Your task to perform on an android device: change the upload size in google photos Image 0: 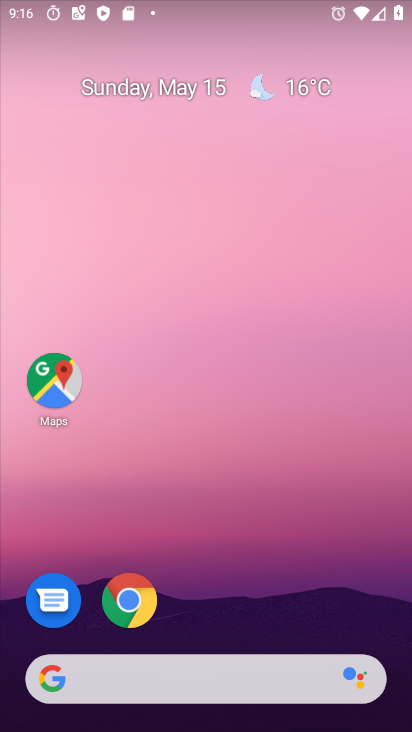
Step 0: drag from (215, 595) to (190, 123)
Your task to perform on an android device: change the upload size in google photos Image 1: 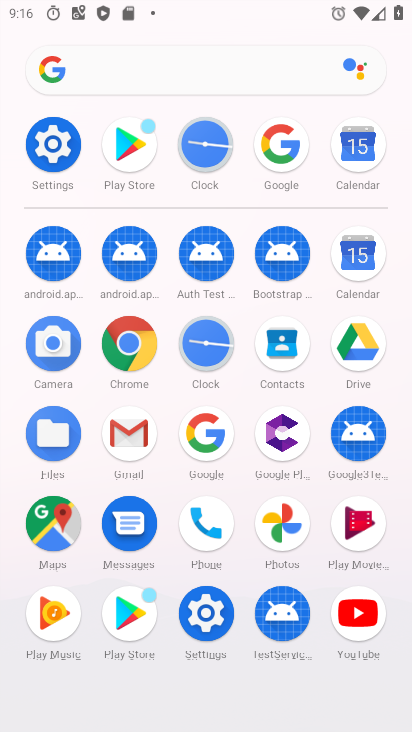
Step 1: click (285, 520)
Your task to perform on an android device: change the upload size in google photos Image 2: 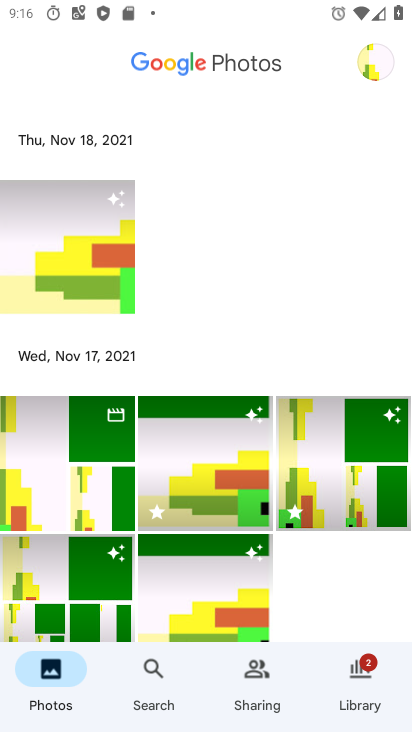
Step 2: click (368, 60)
Your task to perform on an android device: change the upload size in google photos Image 3: 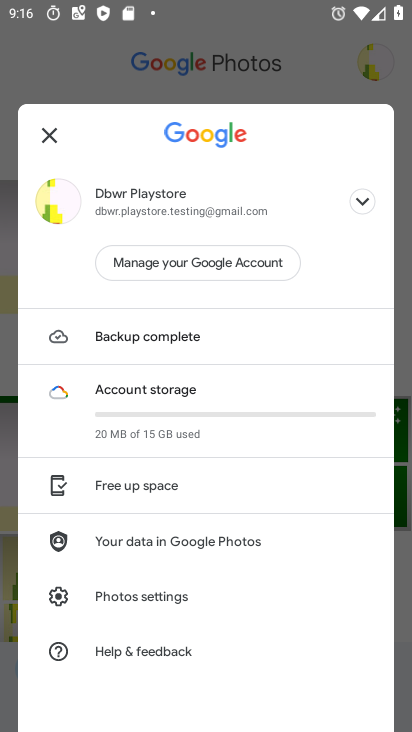
Step 3: click (141, 601)
Your task to perform on an android device: change the upload size in google photos Image 4: 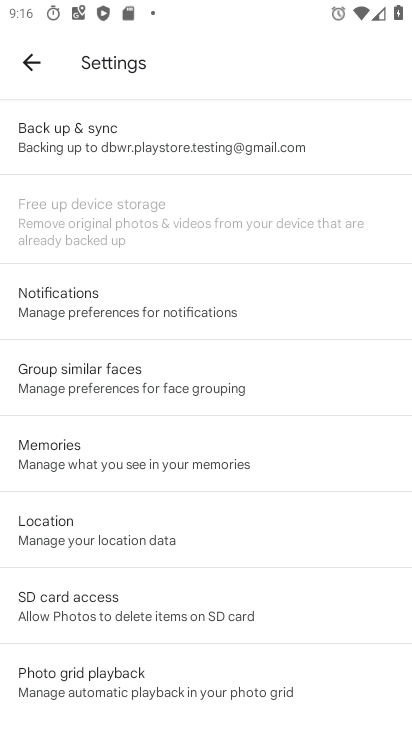
Step 4: click (144, 129)
Your task to perform on an android device: change the upload size in google photos Image 5: 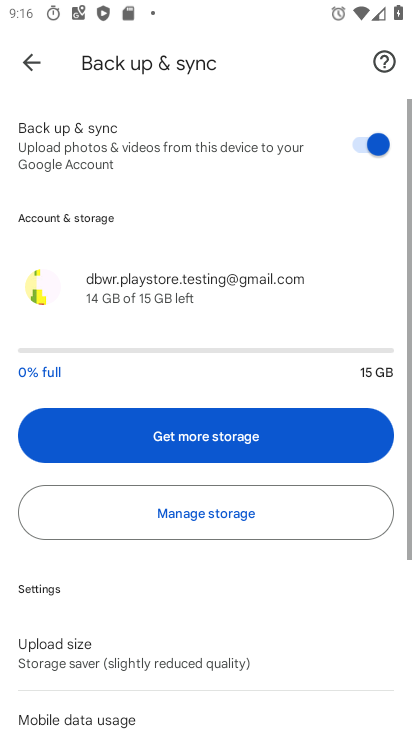
Step 5: click (127, 655)
Your task to perform on an android device: change the upload size in google photos Image 6: 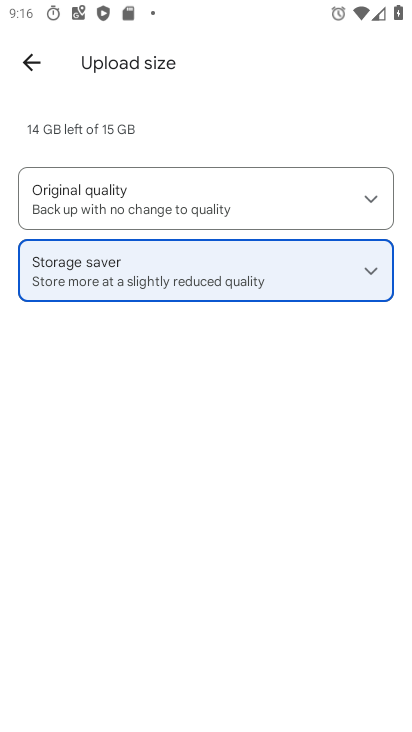
Step 6: click (167, 193)
Your task to perform on an android device: change the upload size in google photos Image 7: 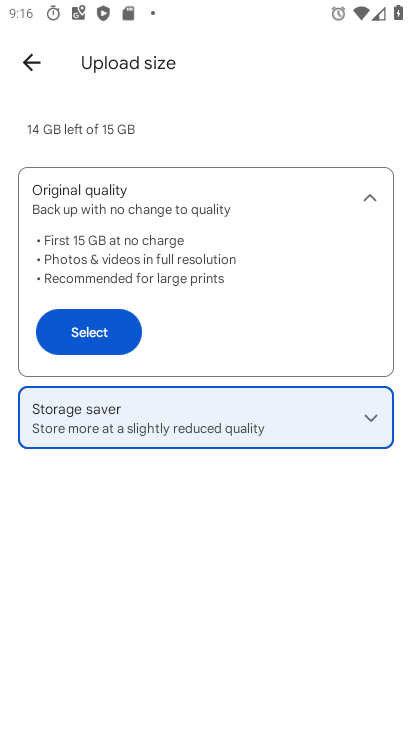
Step 7: click (95, 337)
Your task to perform on an android device: change the upload size in google photos Image 8: 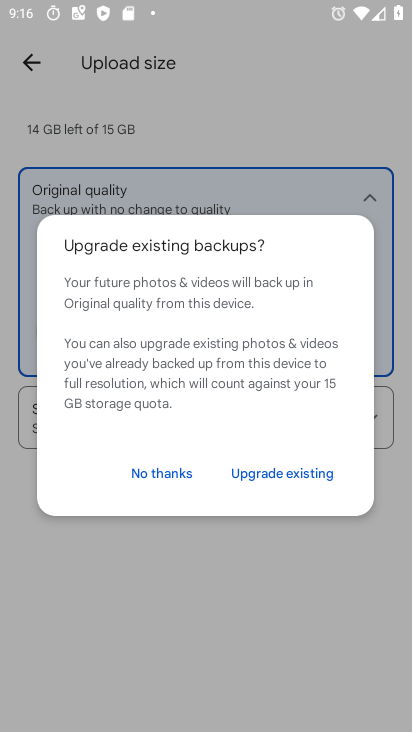
Step 8: click (134, 460)
Your task to perform on an android device: change the upload size in google photos Image 9: 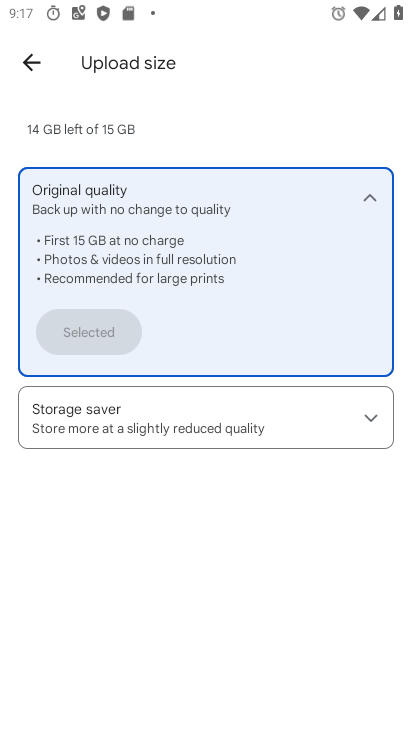
Step 9: task complete